Your task to perform on an android device: install app "Truecaller" Image 0: 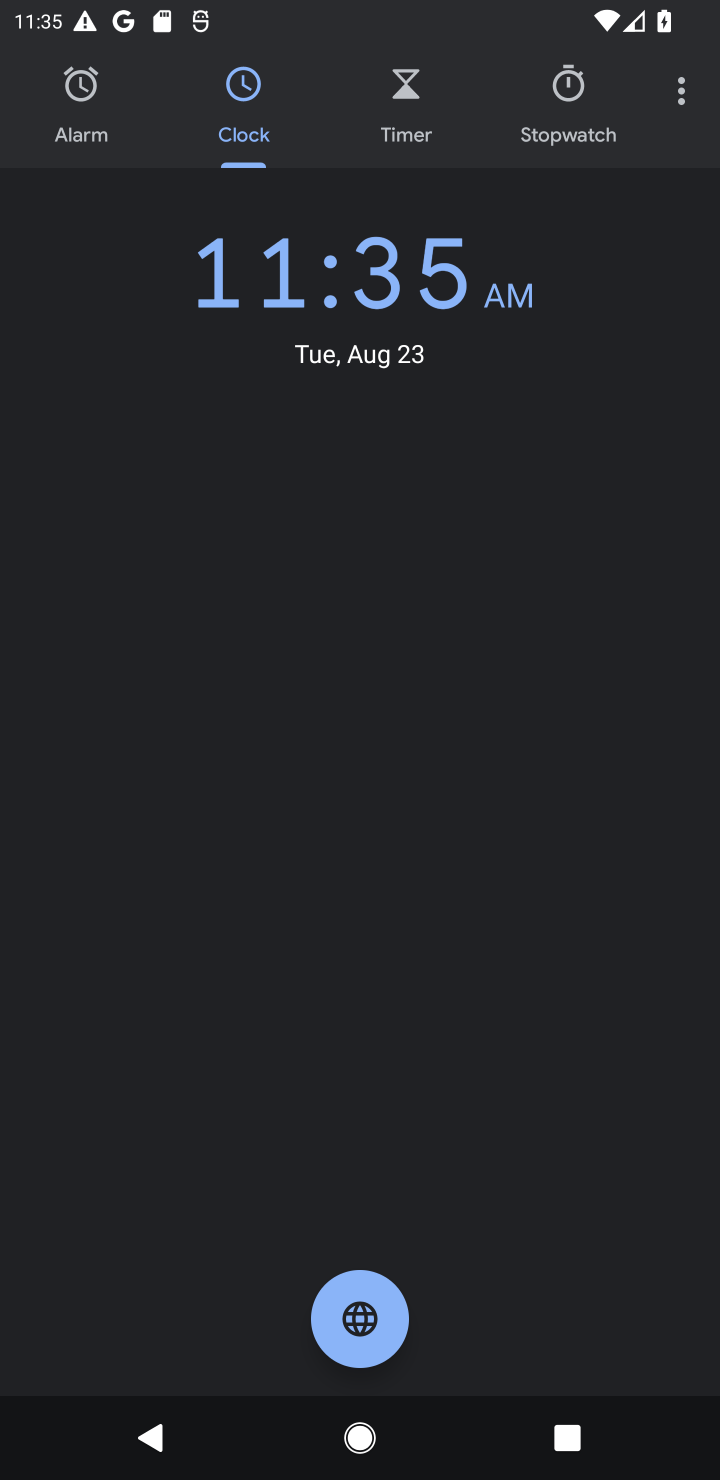
Step 0: press home button
Your task to perform on an android device: install app "Truecaller" Image 1: 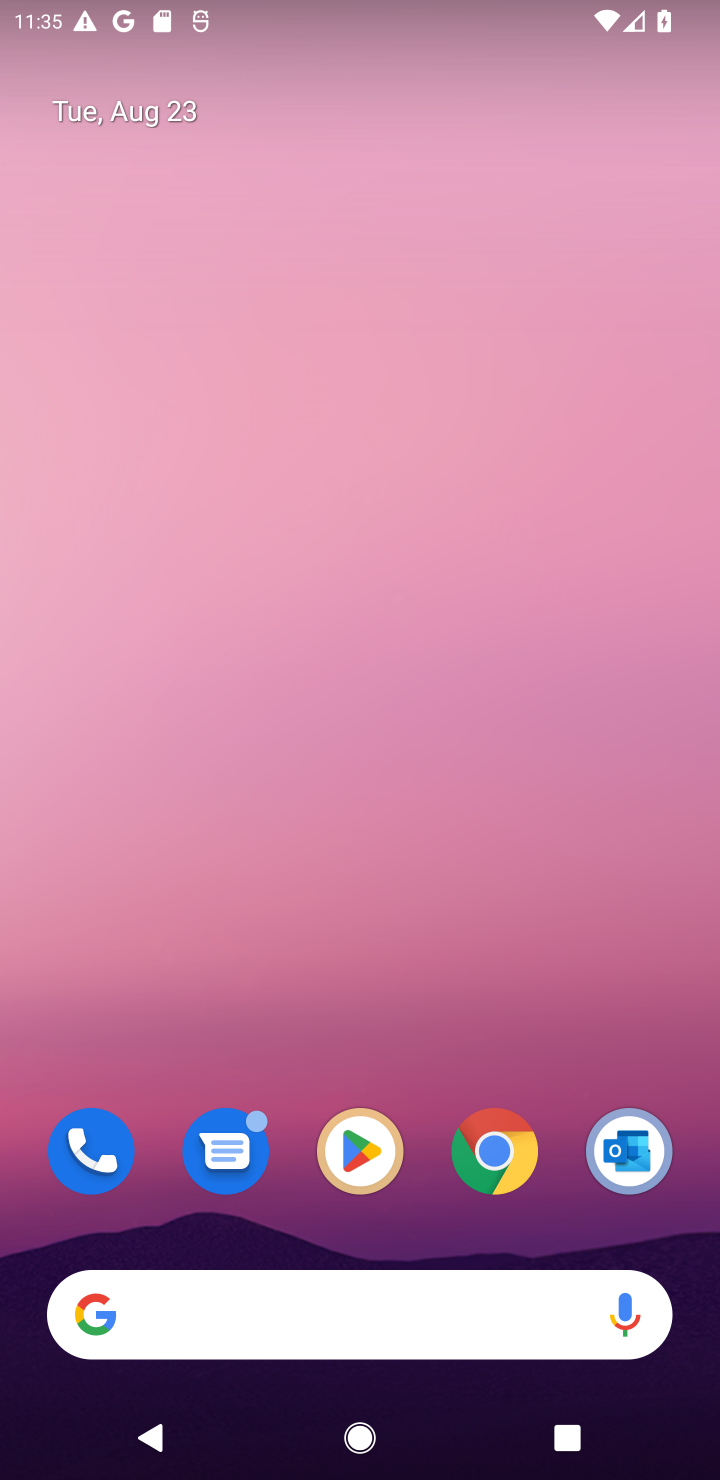
Step 1: click (362, 1150)
Your task to perform on an android device: install app "Truecaller" Image 2: 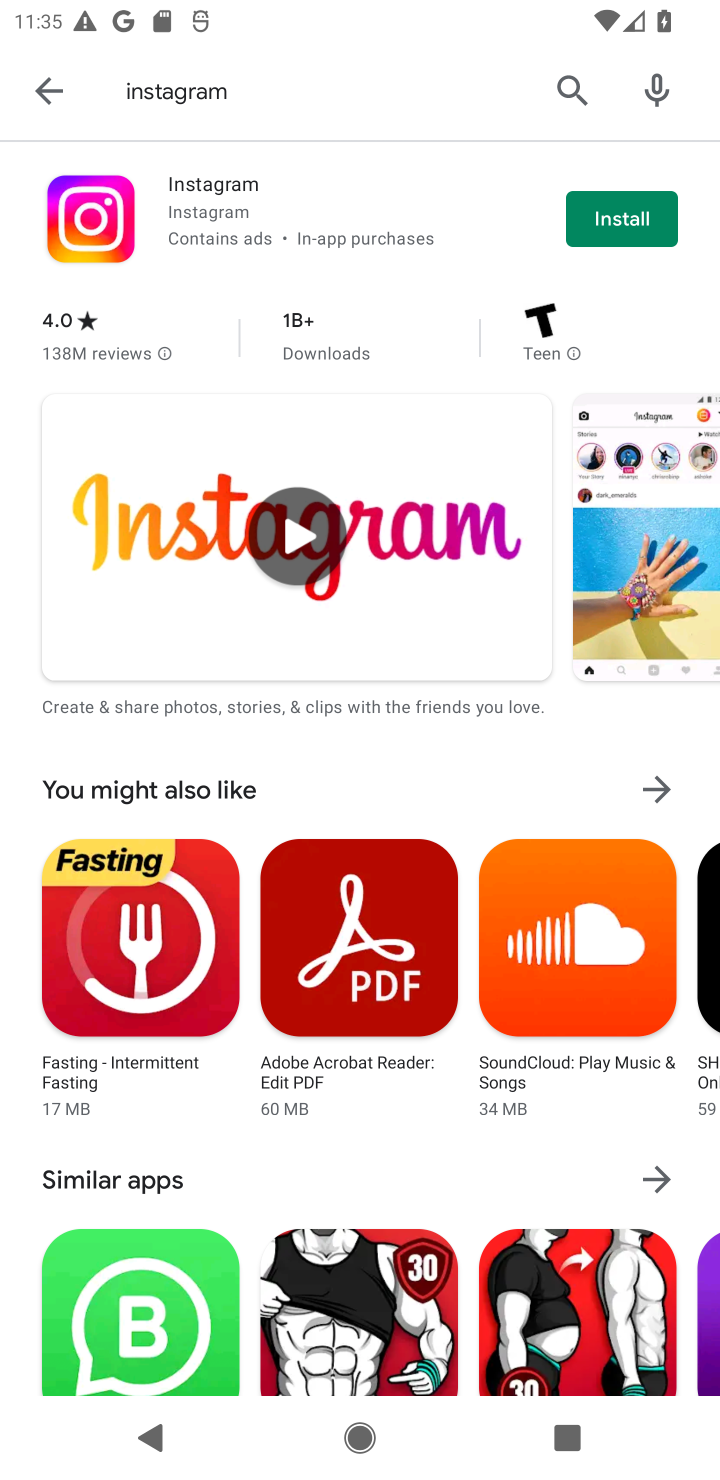
Step 2: click (563, 77)
Your task to perform on an android device: install app "Truecaller" Image 3: 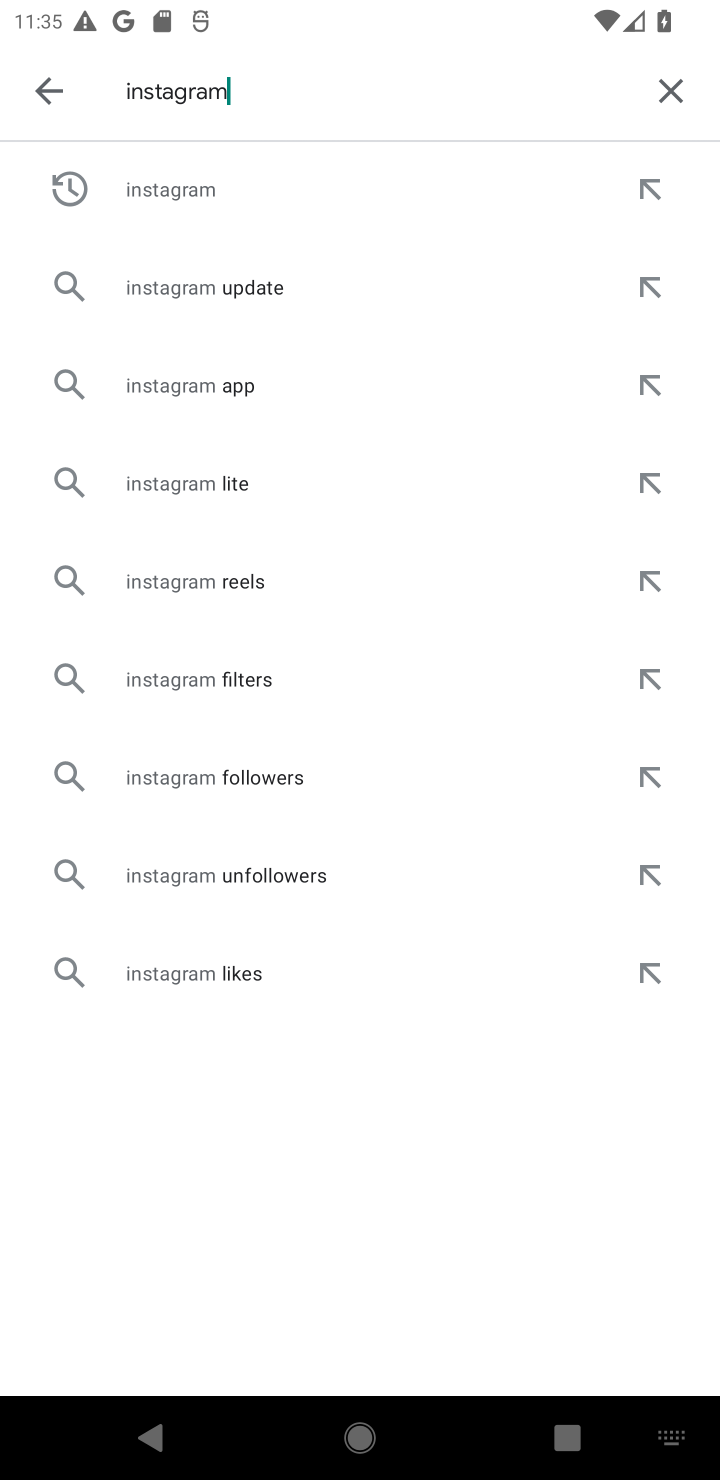
Step 3: click (652, 87)
Your task to perform on an android device: install app "Truecaller" Image 4: 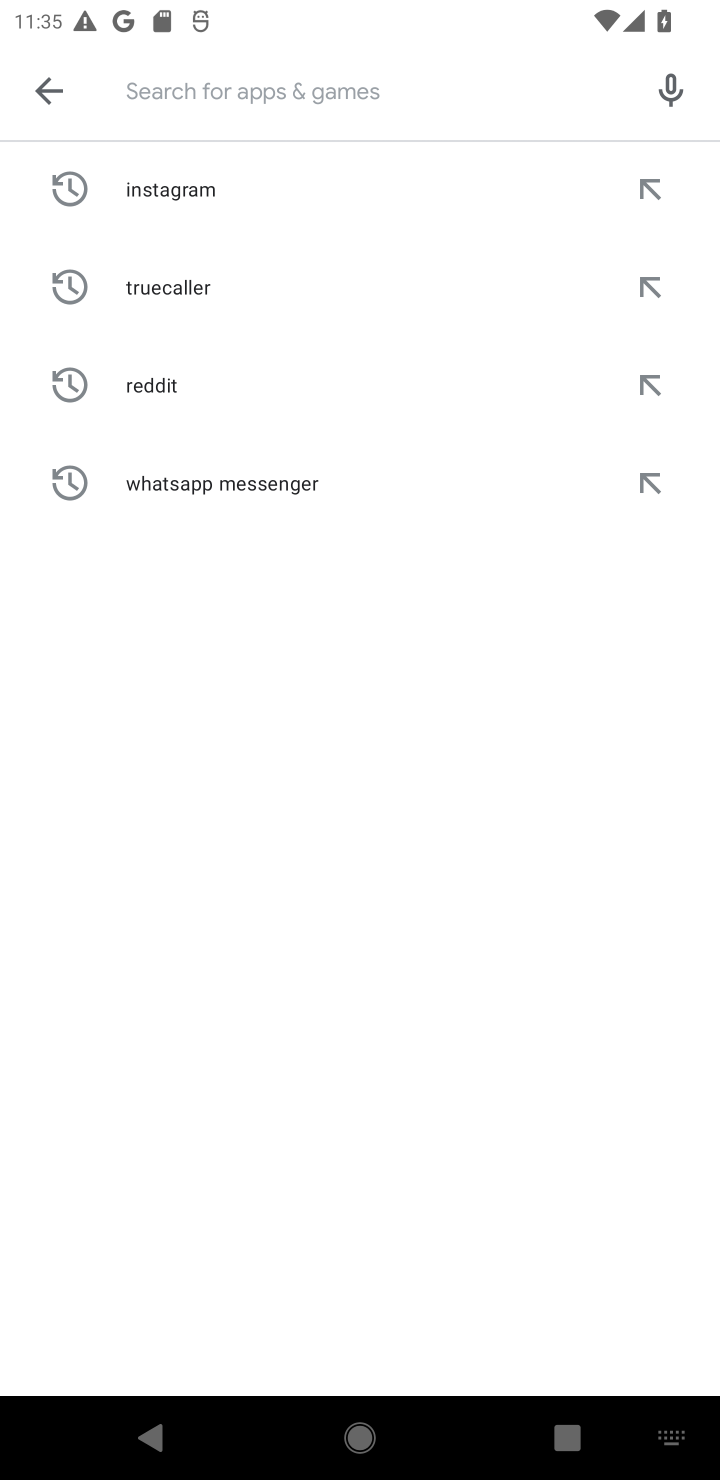
Step 4: type "Truecaller"
Your task to perform on an android device: install app "Truecaller" Image 5: 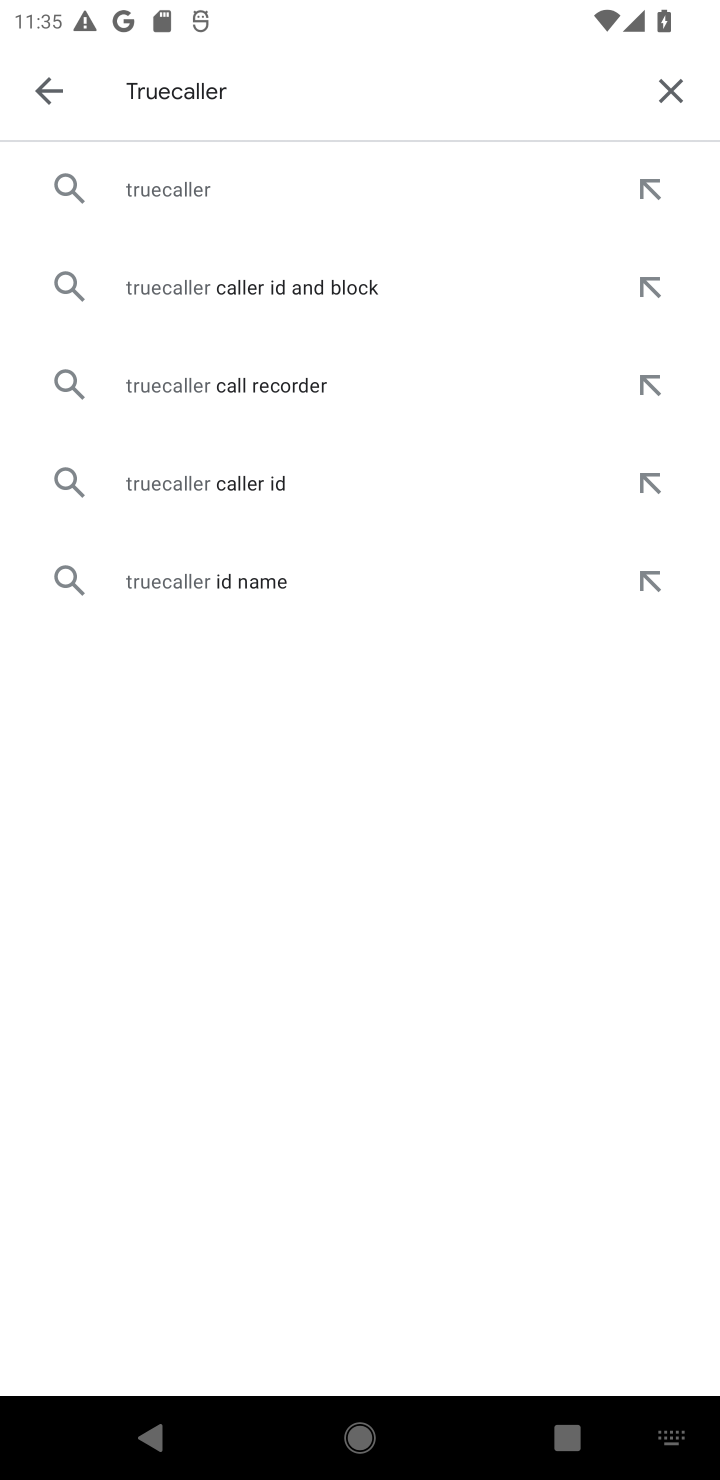
Step 5: click (224, 195)
Your task to perform on an android device: install app "Truecaller" Image 6: 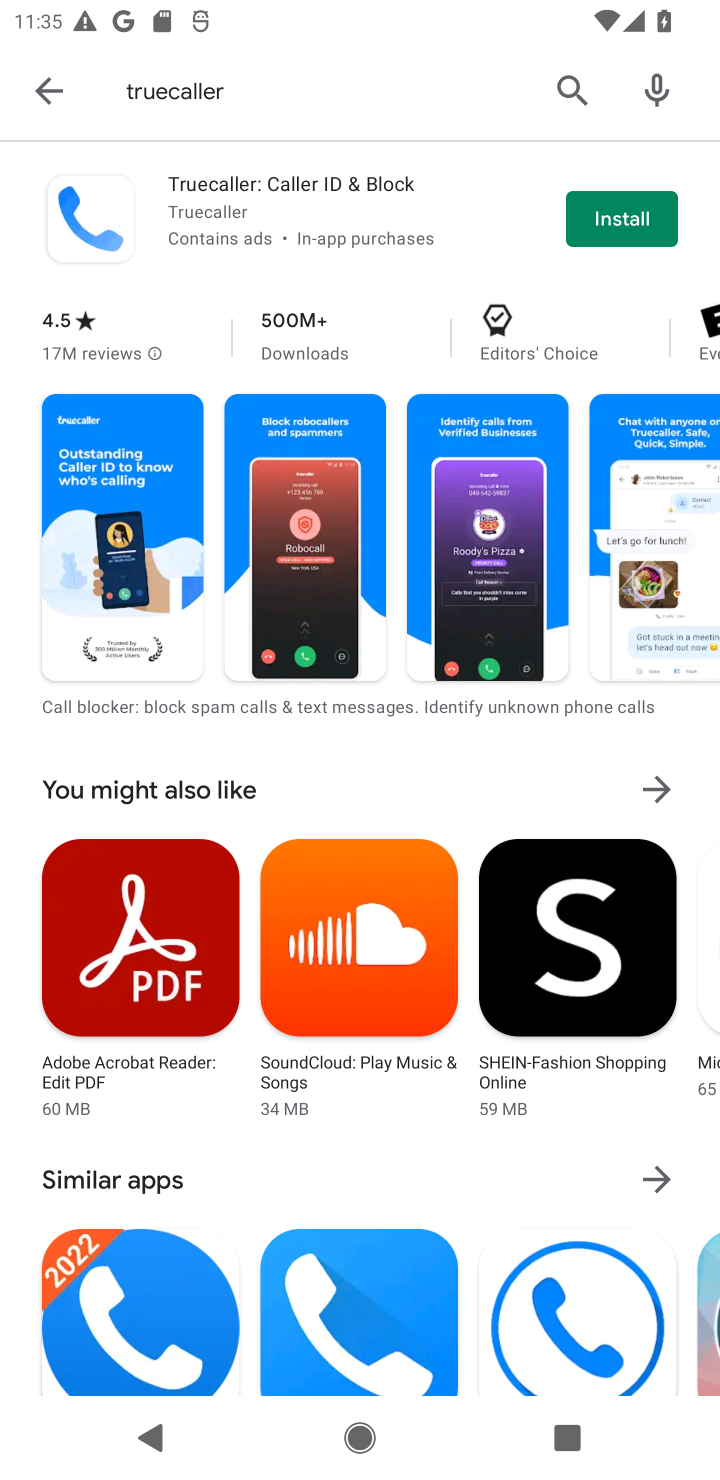
Step 6: click (609, 217)
Your task to perform on an android device: install app "Truecaller" Image 7: 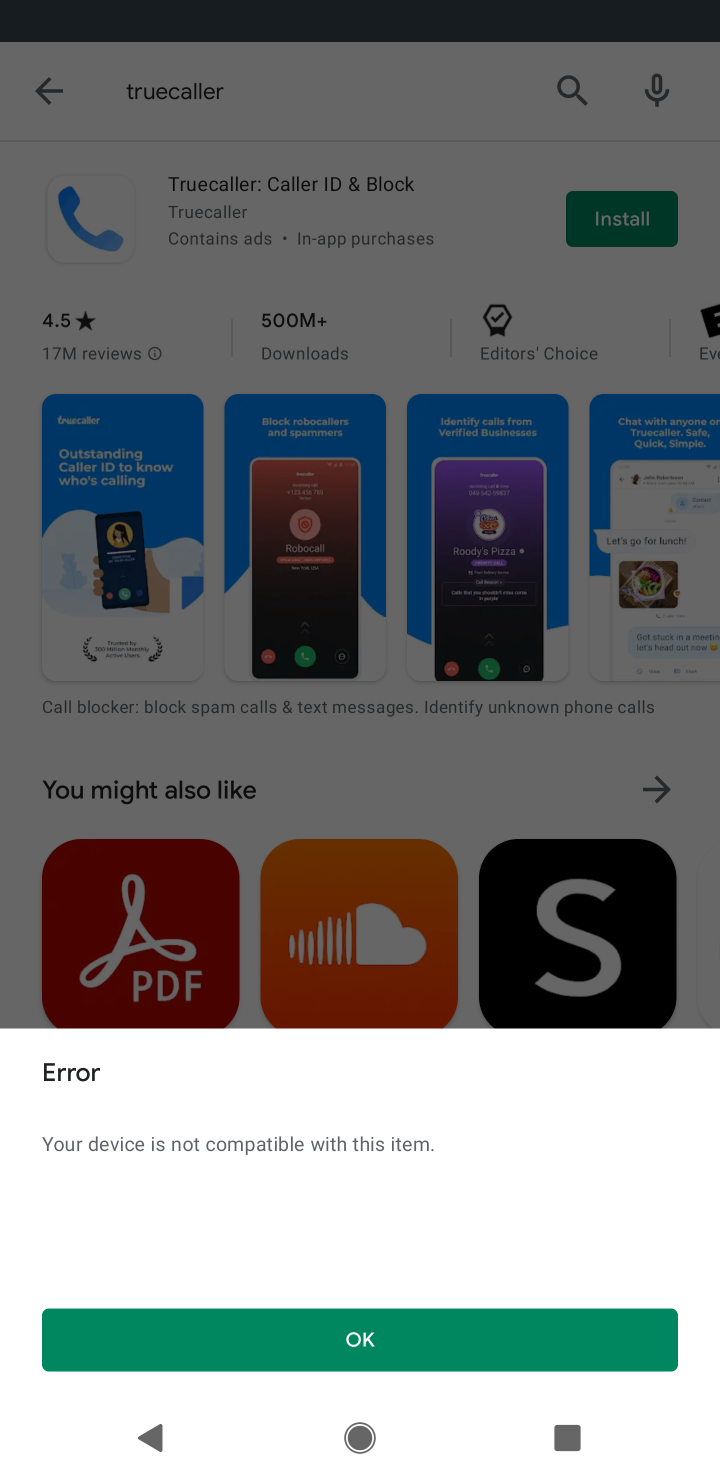
Step 7: task complete